Your task to perform on an android device: toggle translation in the chrome app Image 0: 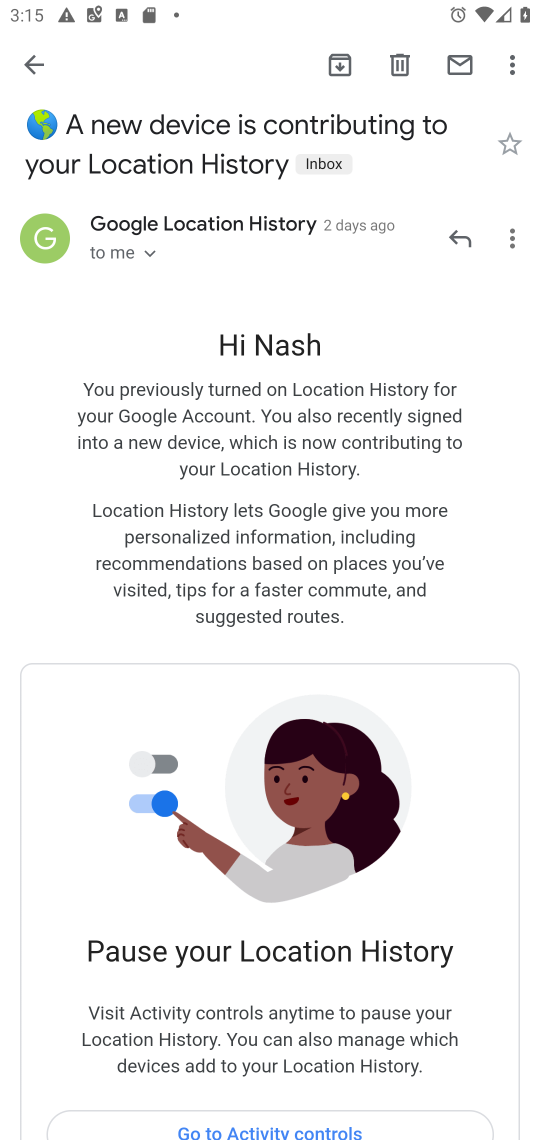
Step 0: press home button
Your task to perform on an android device: toggle translation in the chrome app Image 1: 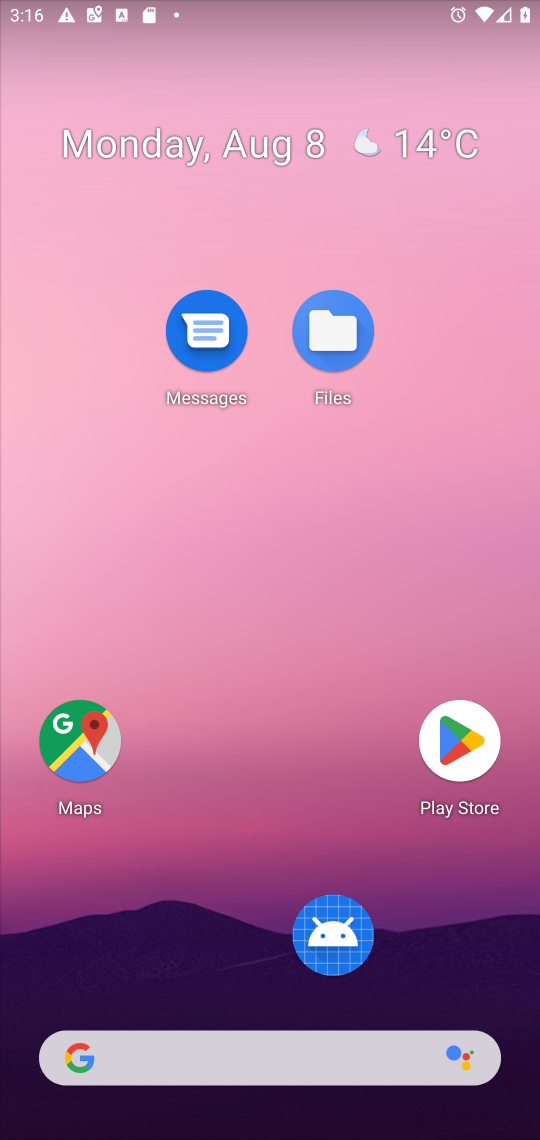
Step 1: drag from (356, 1037) to (354, 242)
Your task to perform on an android device: toggle translation in the chrome app Image 2: 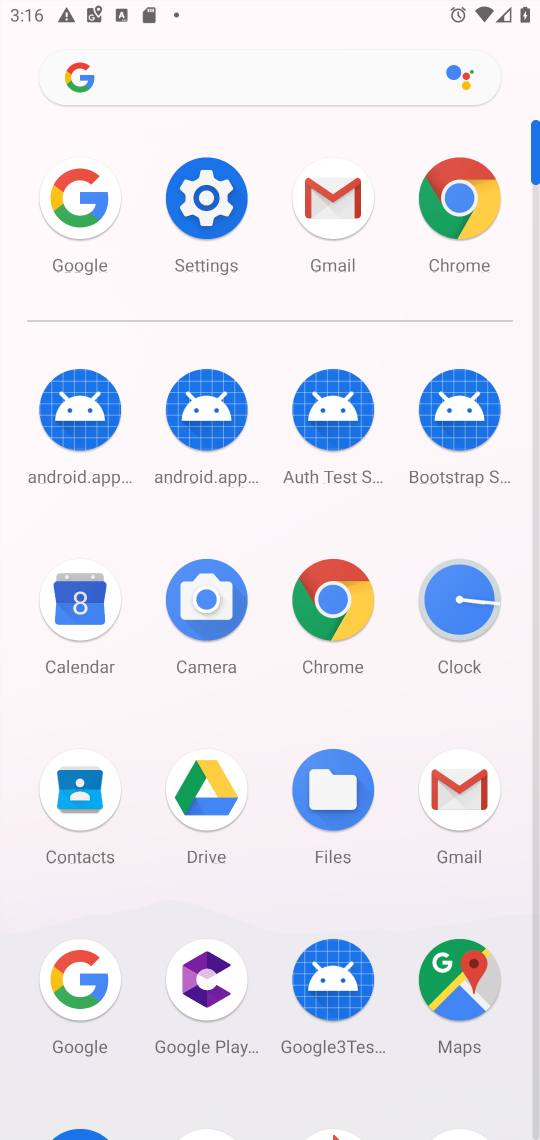
Step 2: click (331, 602)
Your task to perform on an android device: toggle translation in the chrome app Image 3: 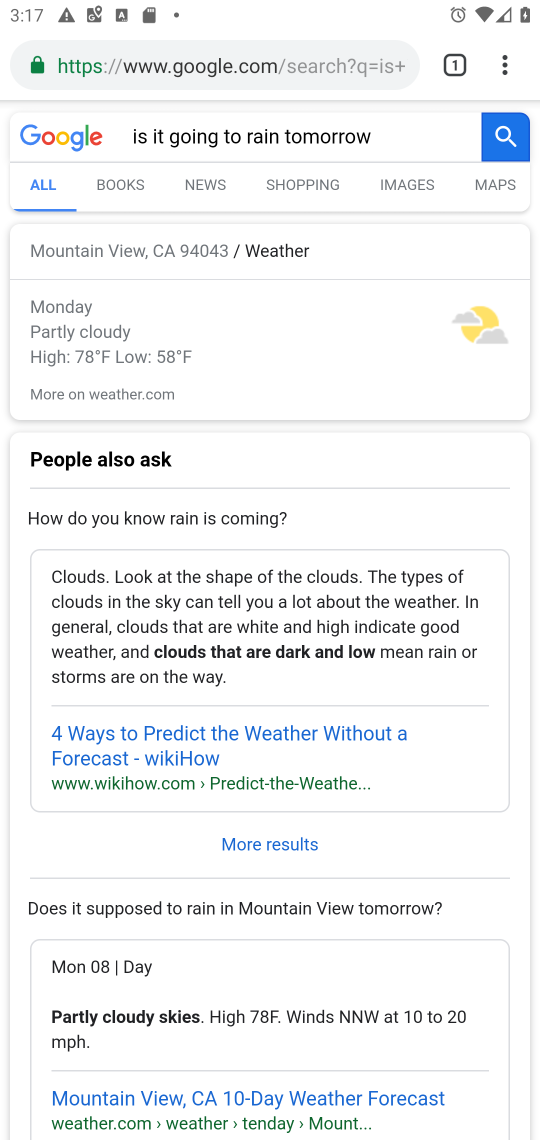
Step 3: click (507, 61)
Your task to perform on an android device: toggle translation in the chrome app Image 4: 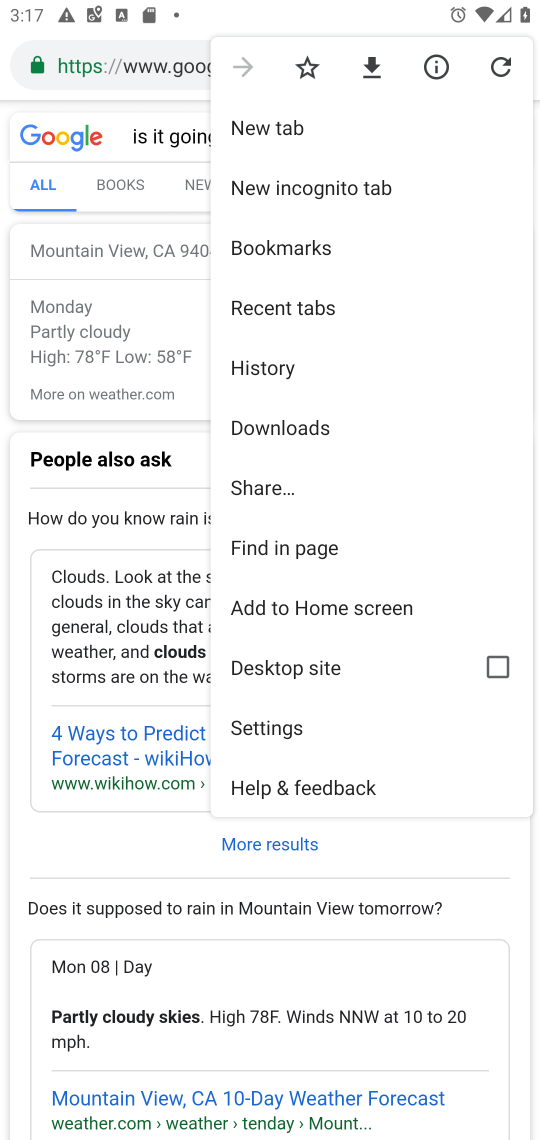
Step 4: click (296, 724)
Your task to perform on an android device: toggle translation in the chrome app Image 5: 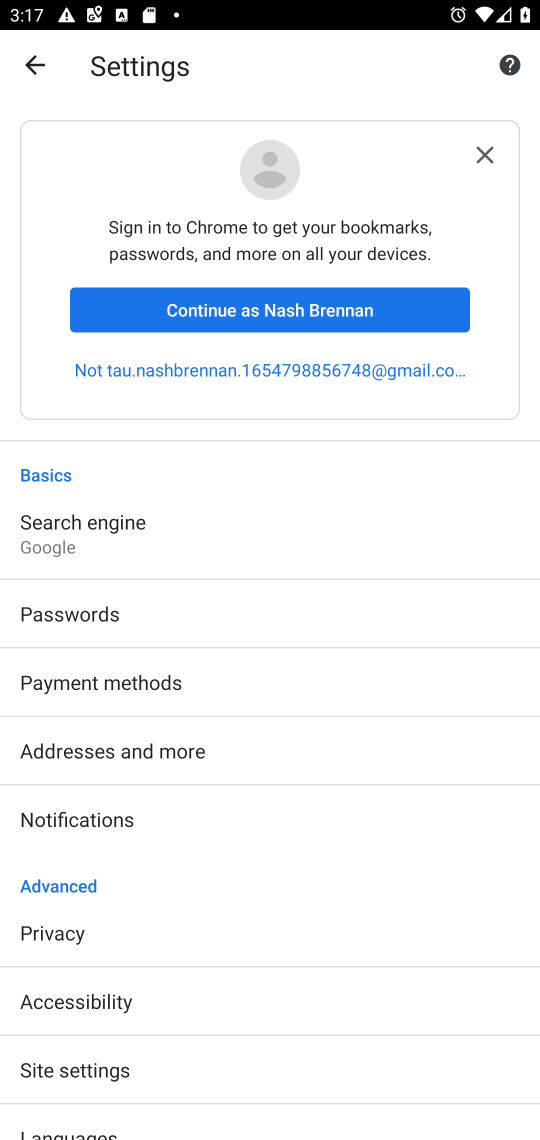
Step 5: click (156, 1064)
Your task to perform on an android device: toggle translation in the chrome app Image 6: 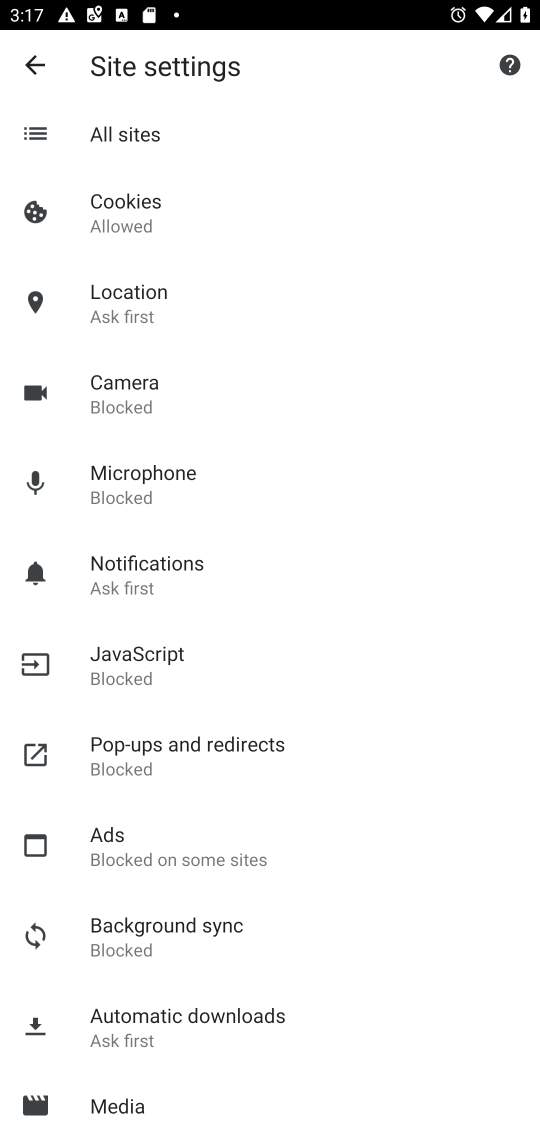
Step 6: press back button
Your task to perform on an android device: toggle translation in the chrome app Image 7: 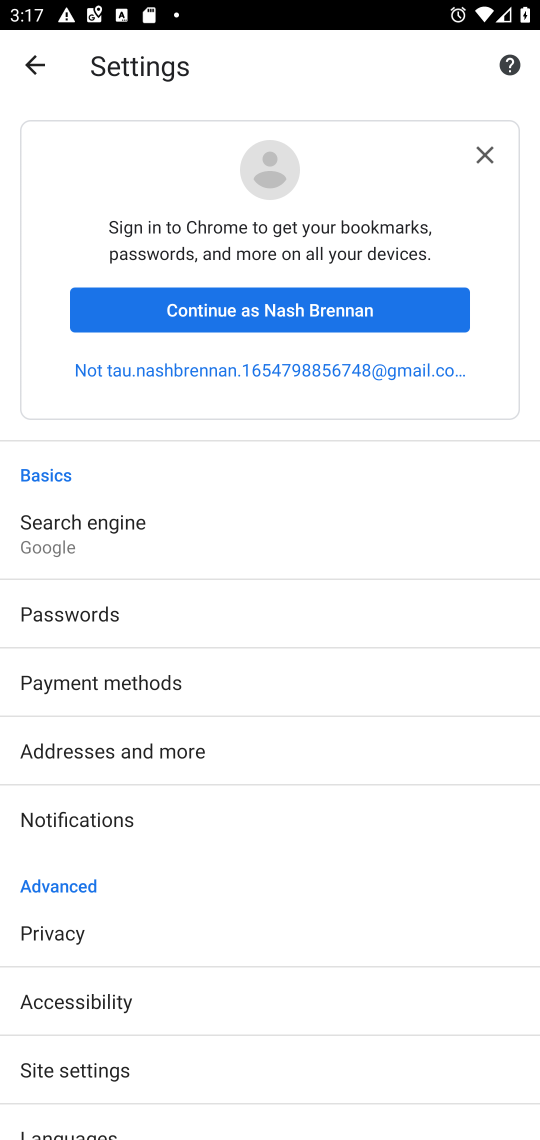
Step 7: drag from (189, 1031) to (306, 556)
Your task to perform on an android device: toggle translation in the chrome app Image 8: 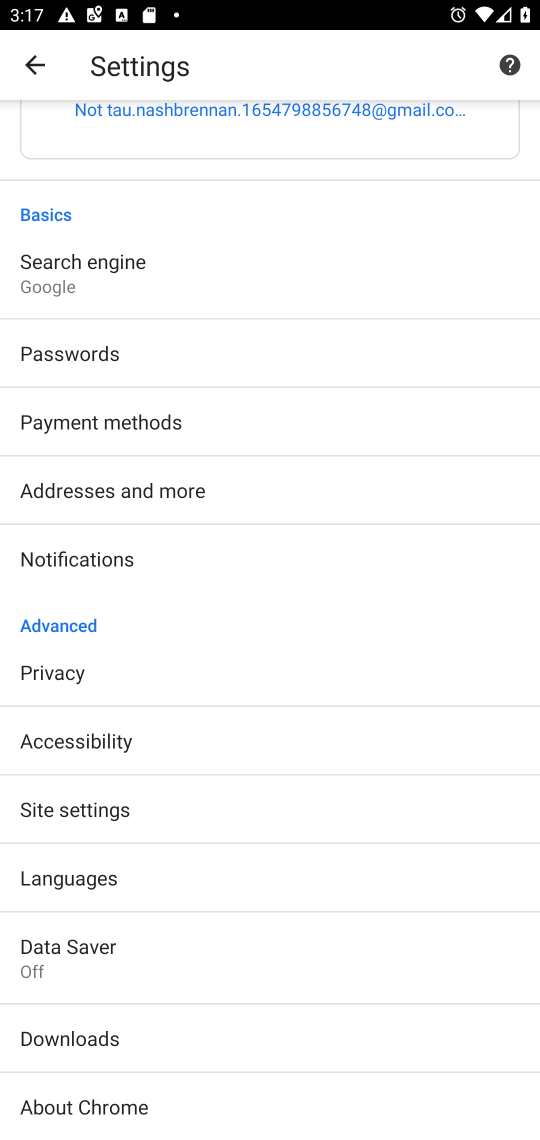
Step 8: click (133, 894)
Your task to perform on an android device: toggle translation in the chrome app Image 9: 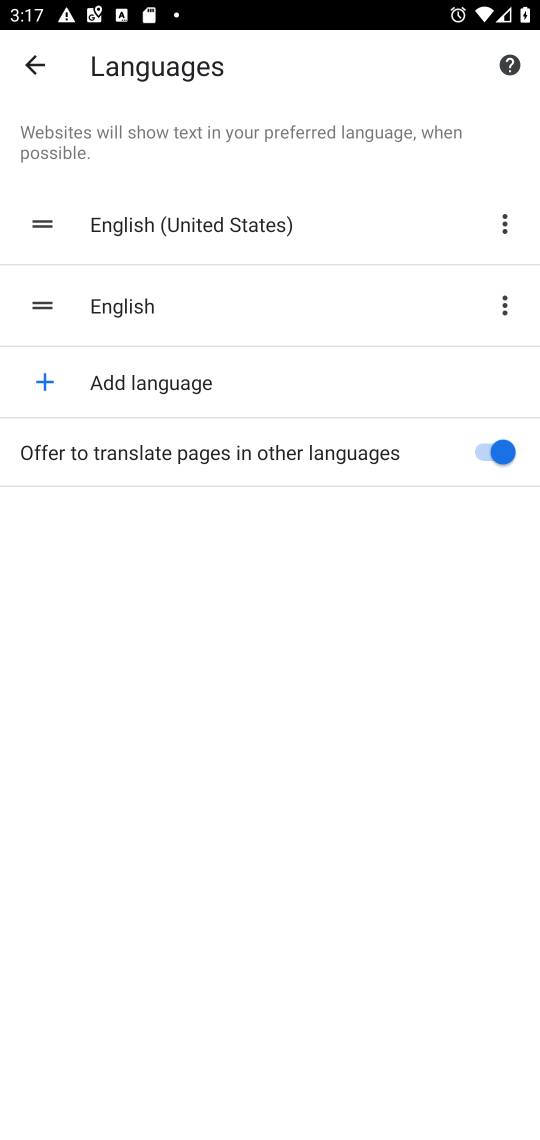
Step 9: click (492, 446)
Your task to perform on an android device: toggle translation in the chrome app Image 10: 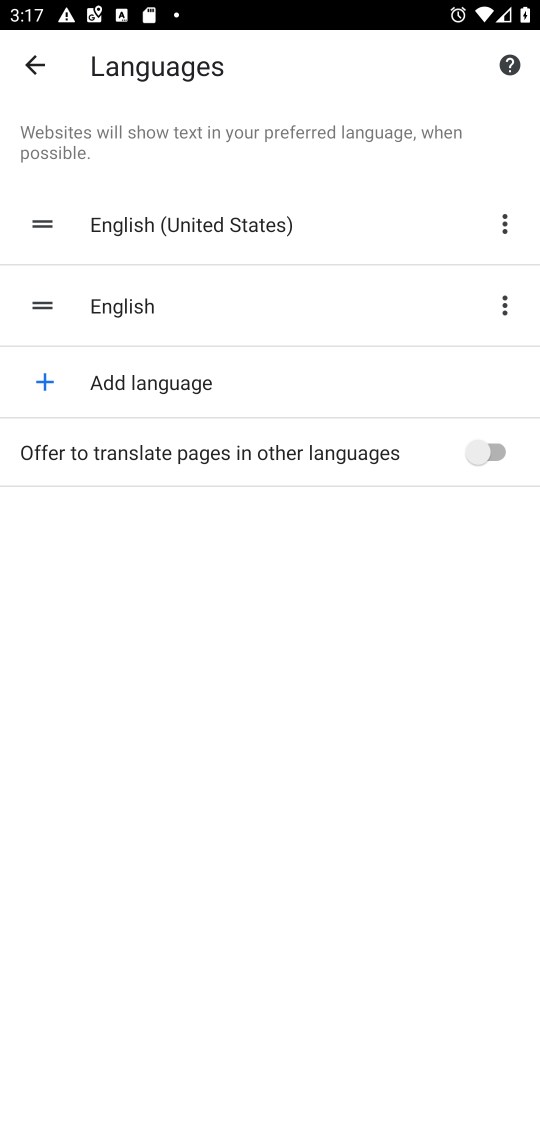
Step 10: task complete